Your task to perform on an android device: Clear all items from cart on ebay. Search for lenovo thinkpad on ebay, select the first entry, add it to the cart, then select checkout. Image 0: 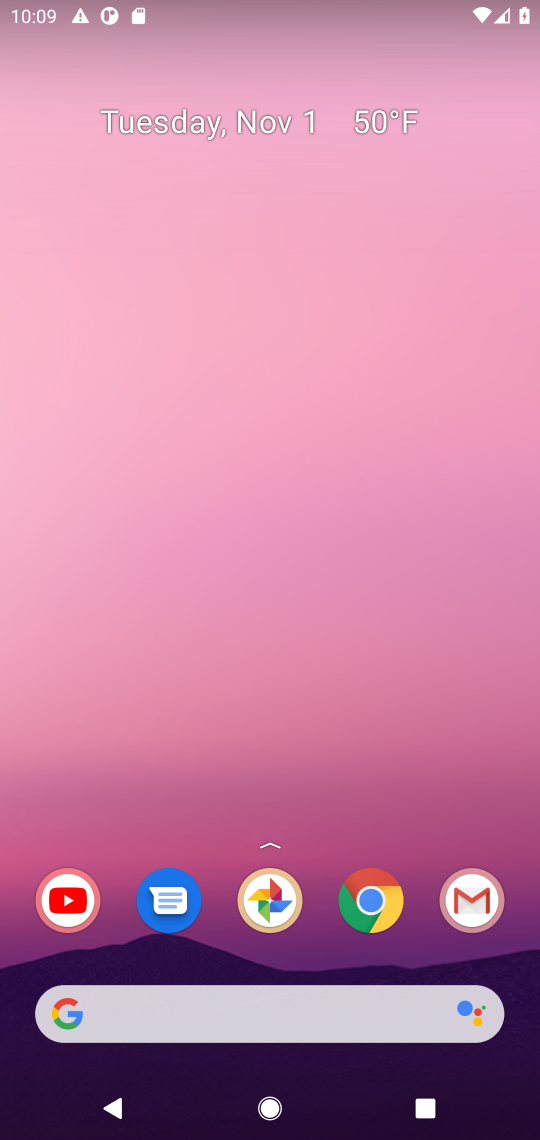
Step 0: click (352, 904)
Your task to perform on an android device: Clear all items from cart on ebay. Search for lenovo thinkpad on ebay, select the first entry, add it to the cart, then select checkout. Image 1: 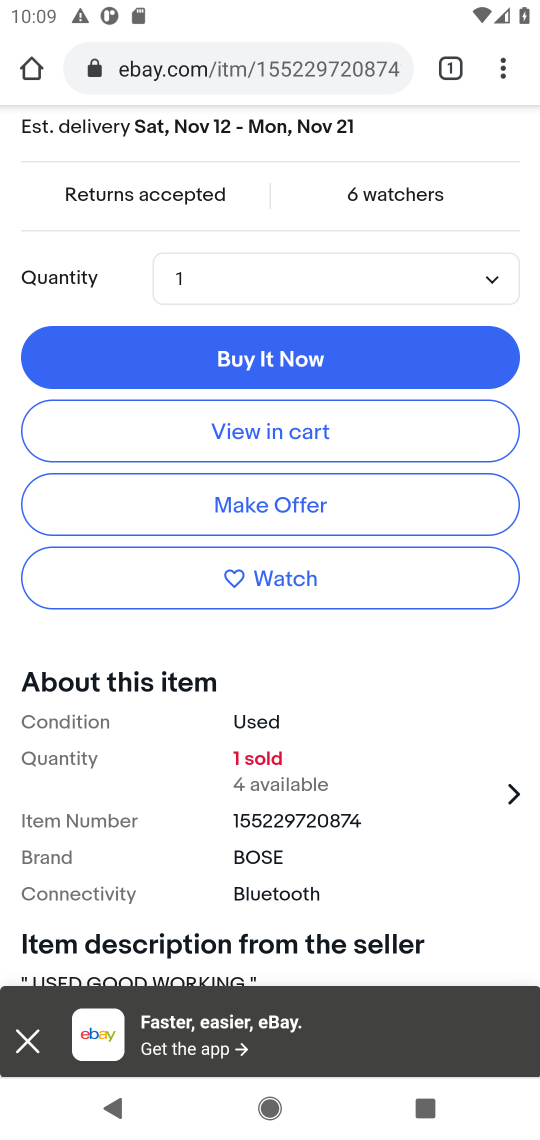
Step 1: click (281, 64)
Your task to perform on an android device: Clear all items from cart on ebay. Search for lenovo thinkpad on ebay, select the first entry, add it to the cart, then select checkout. Image 2: 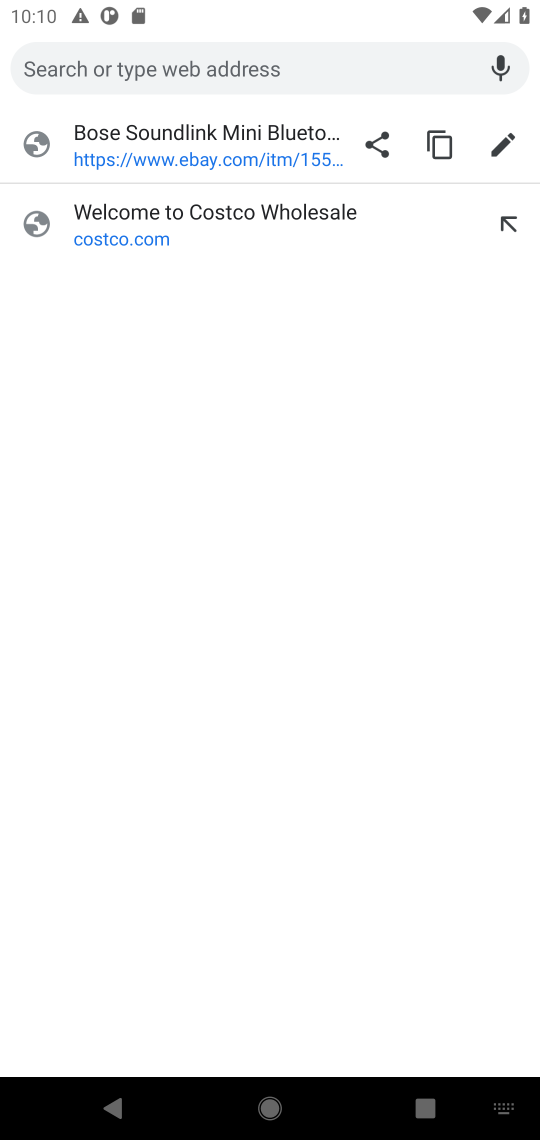
Step 2: type "ebay"
Your task to perform on an android device: Clear all items from cart on ebay. Search for lenovo thinkpad on ebay, select the first entry, add it to the cart, then select checkout. Image 3: 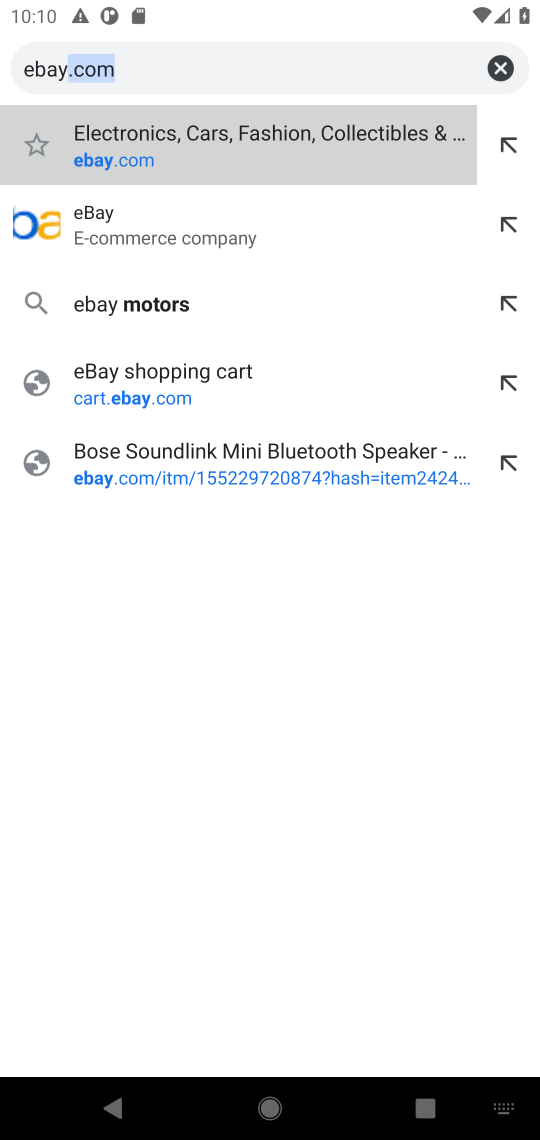
Step 3: click (119, 237)
Your task to perform on an android device: Clear all items from cart on ebay. Search for lenovo thinkpad on ebay, select the first entry, add it to the cart, then select checkout. Image 4: 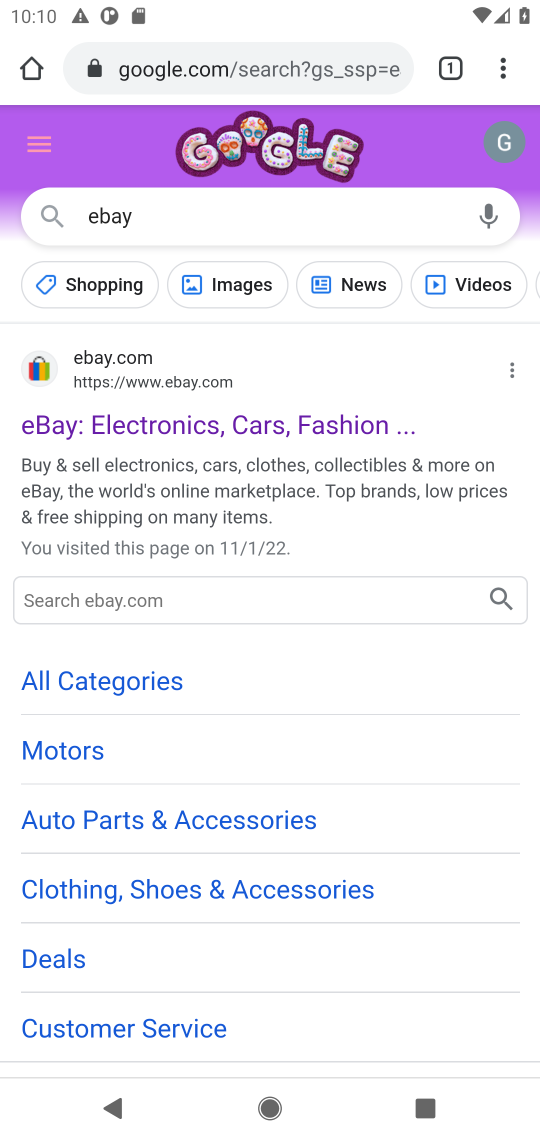
Step 4: click (186, 433)
Your task to perform on an android device: Clear all items from cart on ebay. Search for lenovo thinkpad on ebay, select the first entry, add it to the cart, then select checkout. Image 5: 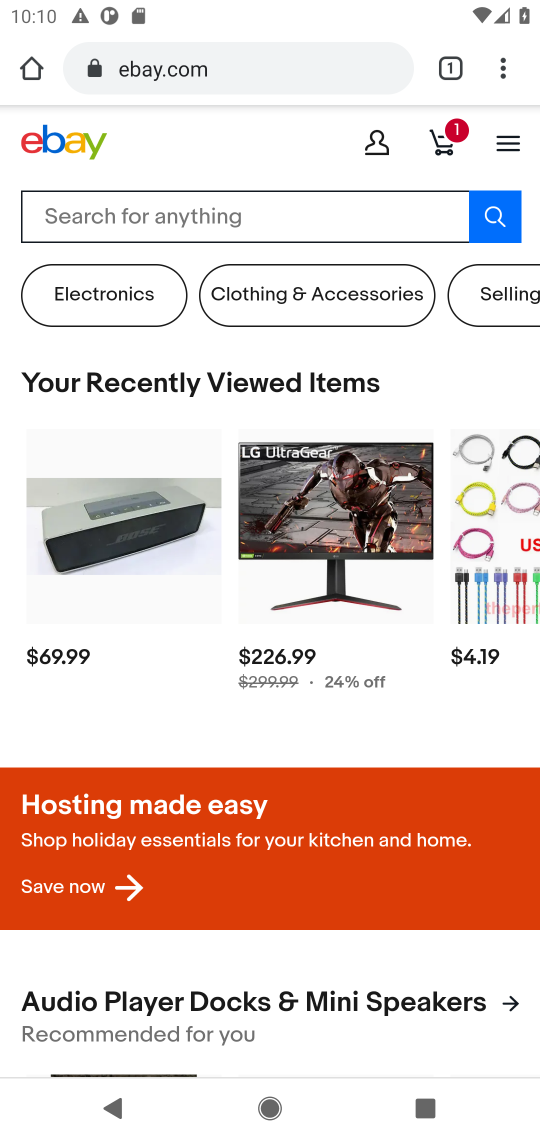
Step 5: click (428, 146)
Your task to perform on an android device: Clear all items from cart on ebay. Search for lenovo thinkpad on ebay, select the first entry, add it to the cart, then select checkout. Image 6: 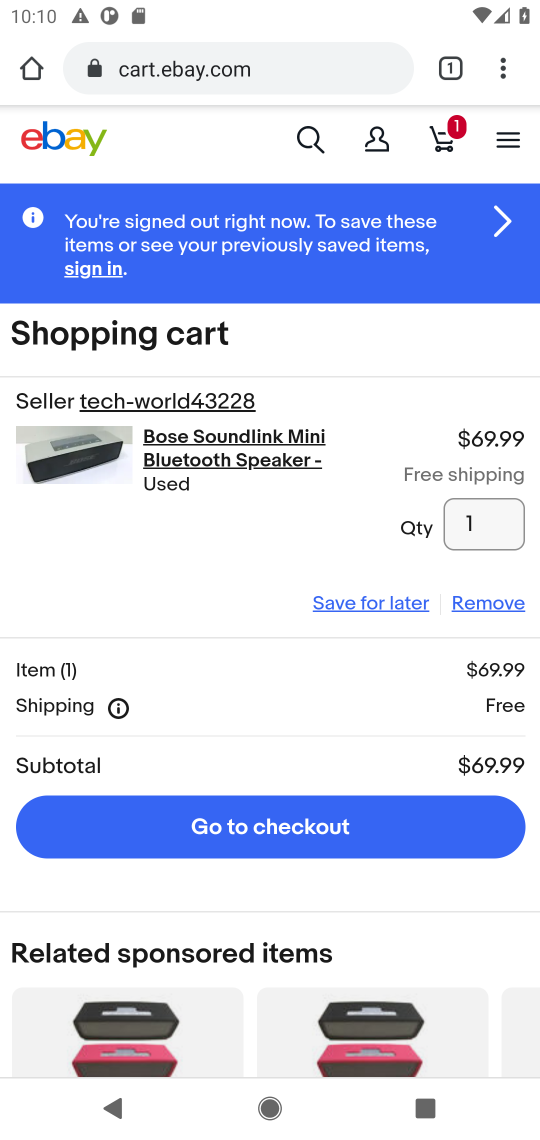
Step 6: click (447, 141)
Your task to perform on an android device: Clear all items from cart on ebay. Search for lenovo thinkpad on ebay, select the first entry, add it to the cart, then select checkout. Image 7: 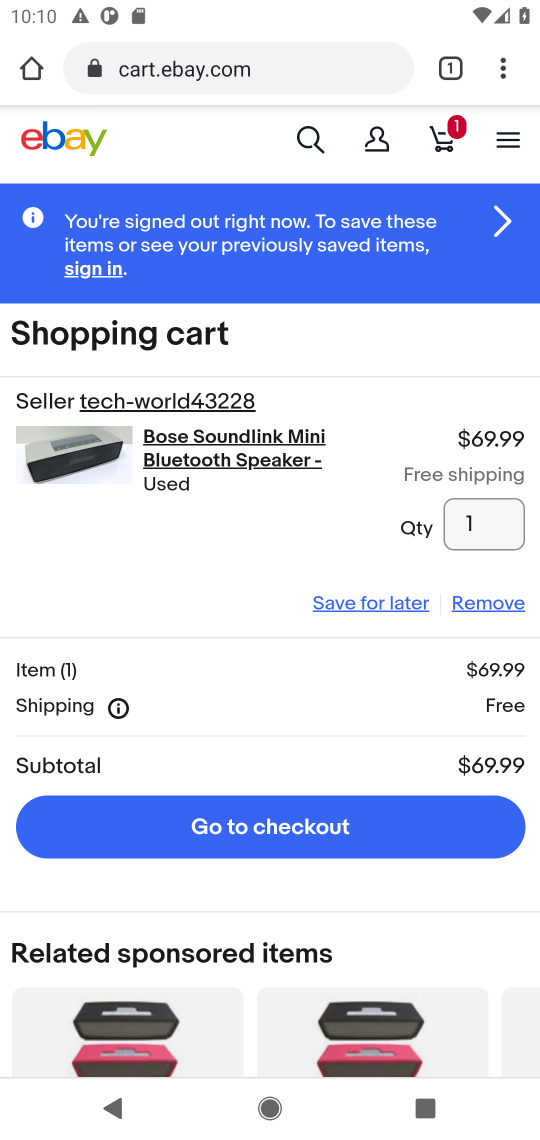
Step 7: click (467, 603)
Your task to perform on an android device: Clear all items from cart on ebay. Search for lenovo thinkpad on ebay, select the first entry, add it to the cart, then select checkout. Image 8: 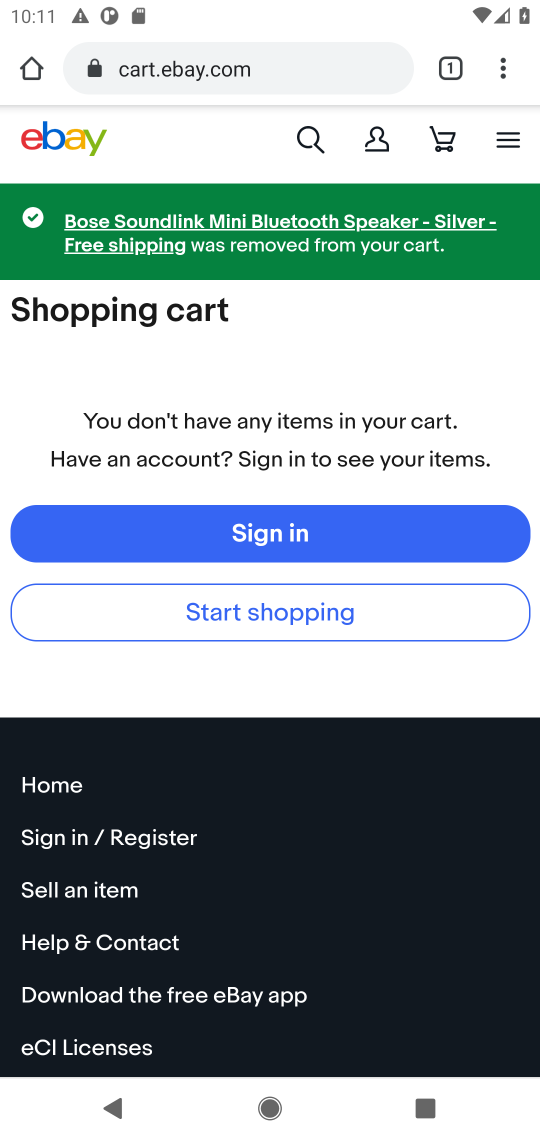
Step 8: click (303, 145)
Your task to perform on an android device: Clear all items from cart on ebay. Search for lenovo thinkpad on ebay, select the first entry, add it to the cart, then select checkout. Image 9: 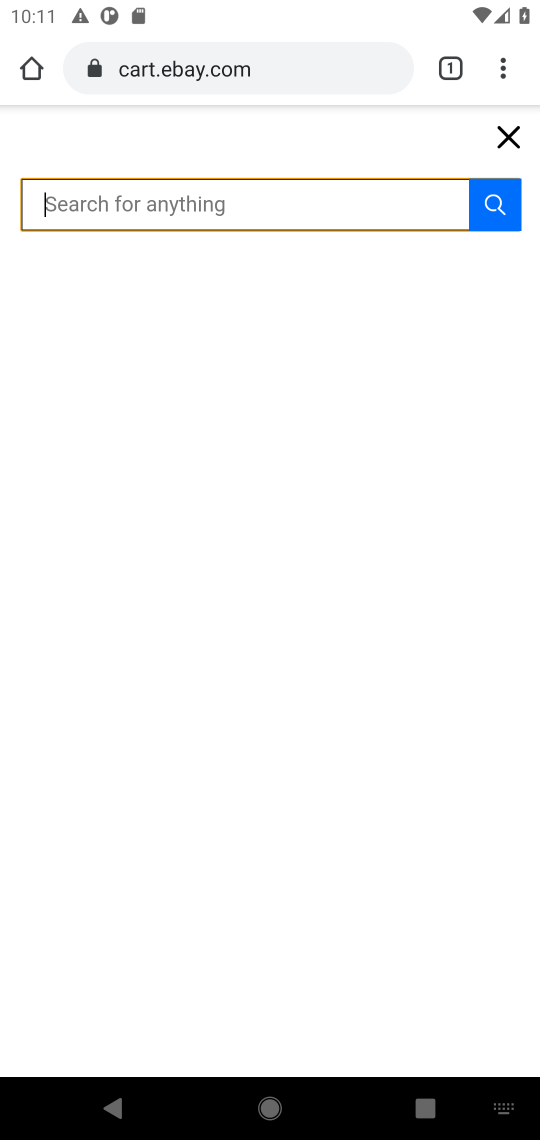
Step 9: type " lenovo thinkpad "
Your task to perform on an android device: Clear all items from cart on ebay. Search for lenovo thinkpad on ebay, select the first entry, add it to the cart, then select checkout. Image 10: 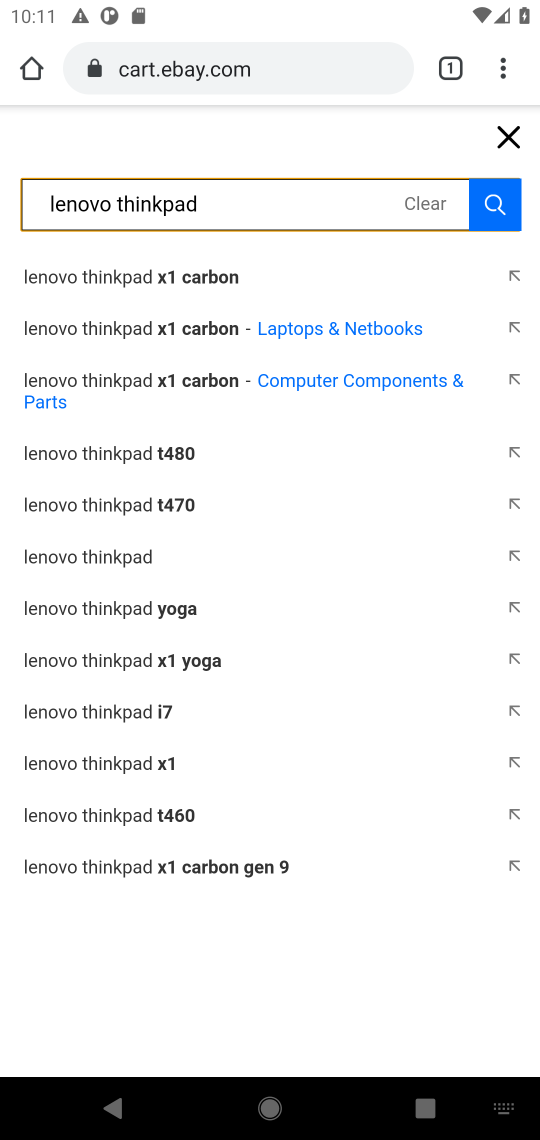
Step 10: click (497, 212)
Your task to perform on an android device: Clear all items from cart on ebay. Search for lenovo thinkpad on ebay, select the first entry, add it to the cart, then select checkout. Image 11: 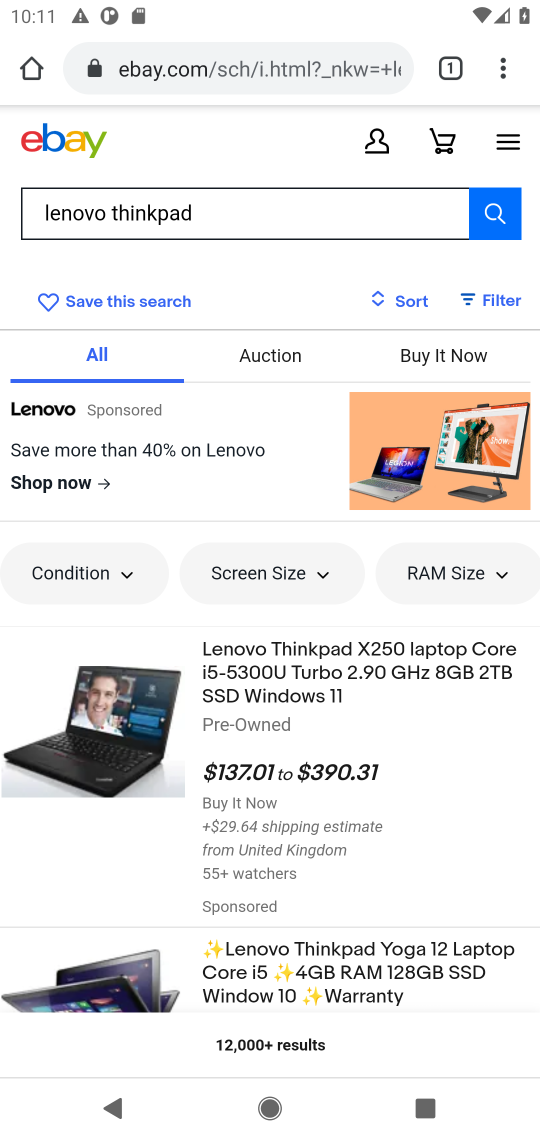
Step 11: click (323, 669)
Your task to perform on an android device: Clear all items from cart on ebay. Search for lenovo thinkpad on ebay, select the first entry, add it to the cart, then select checkout. Image 12: 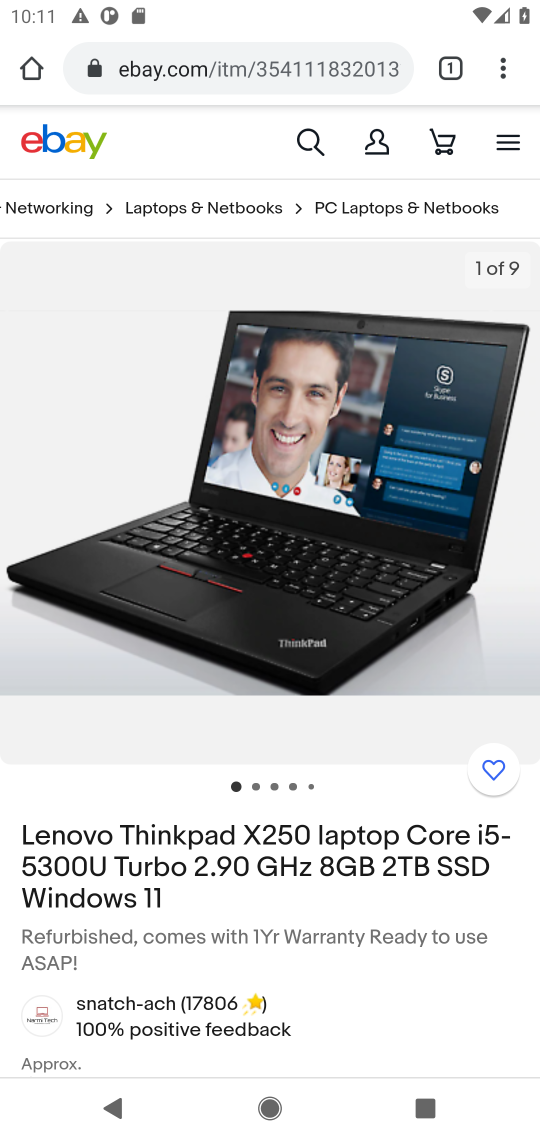
Step 12: drag from (305, 900) to (399, 502)
Your task to perform on an android device: Clear all items from cart on ebay. Search for lenovo thinkpad on ebay, select the first entry, add it to the cart, then select checkout. Image 13: 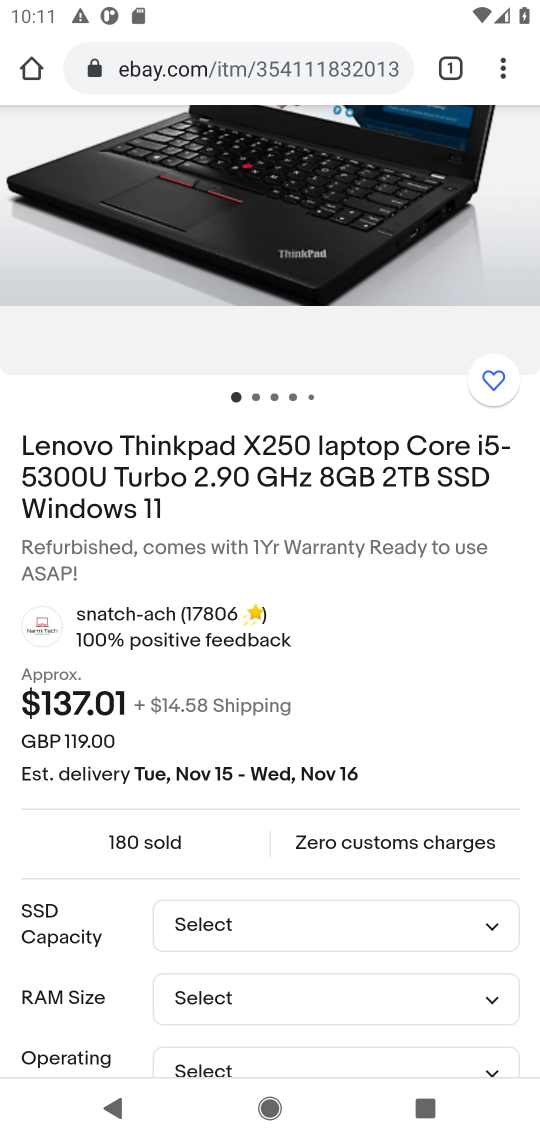
Step 13: drag from (257, 961) to (348, 544)
Your task to perform on an android device: Clear all items from cart on ebay. Search for lenovo thinkpad on ebay, select the first entry, add it to the cart, then select checkout. Image 14: 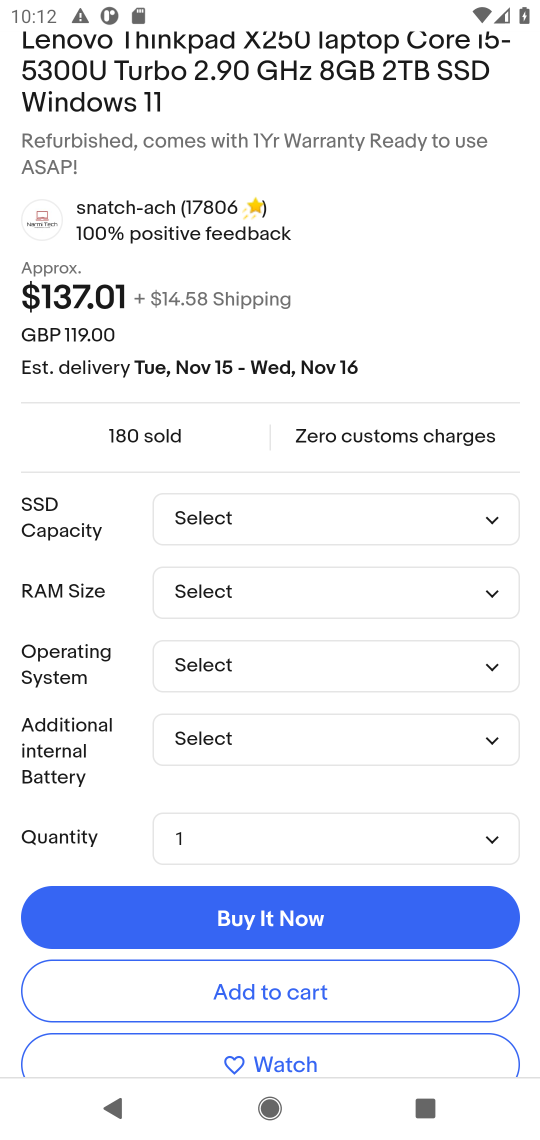
Step 14: click (425, 518)
Your task to perform on an android device: Clear all items from cart on ebay. Search for lenovo thinkpad on ebay, select the first entry, add it to the cart, then select checkout. Image 15: 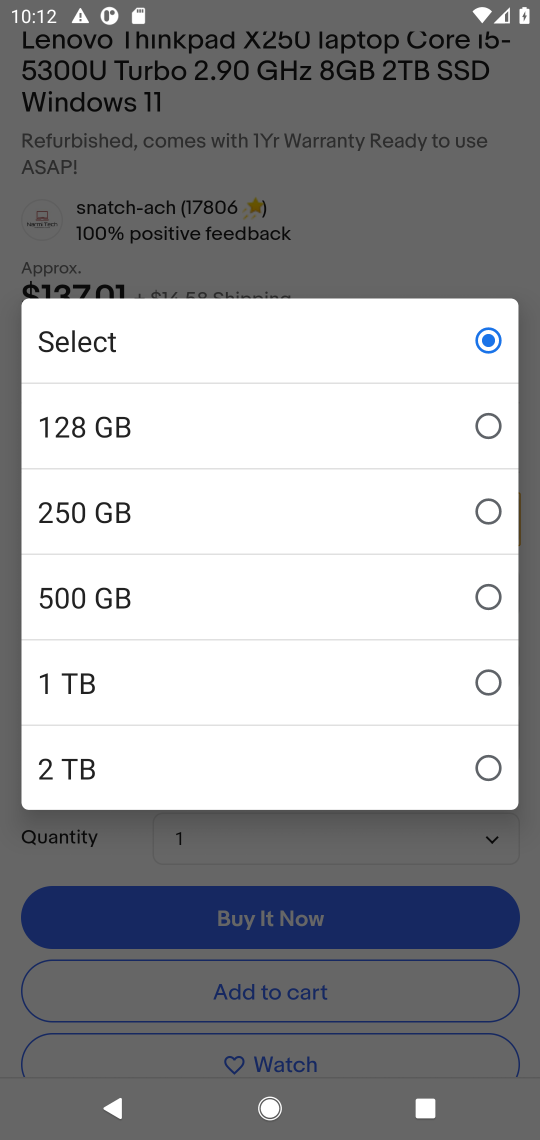
Step 15: click (425, 518)
Your task to perform on an android device: Clear all items from cart on ebay. Search for lenovo thinkpad on ebay, select the first entry, add it to the cart, then select checkout. Image 16: 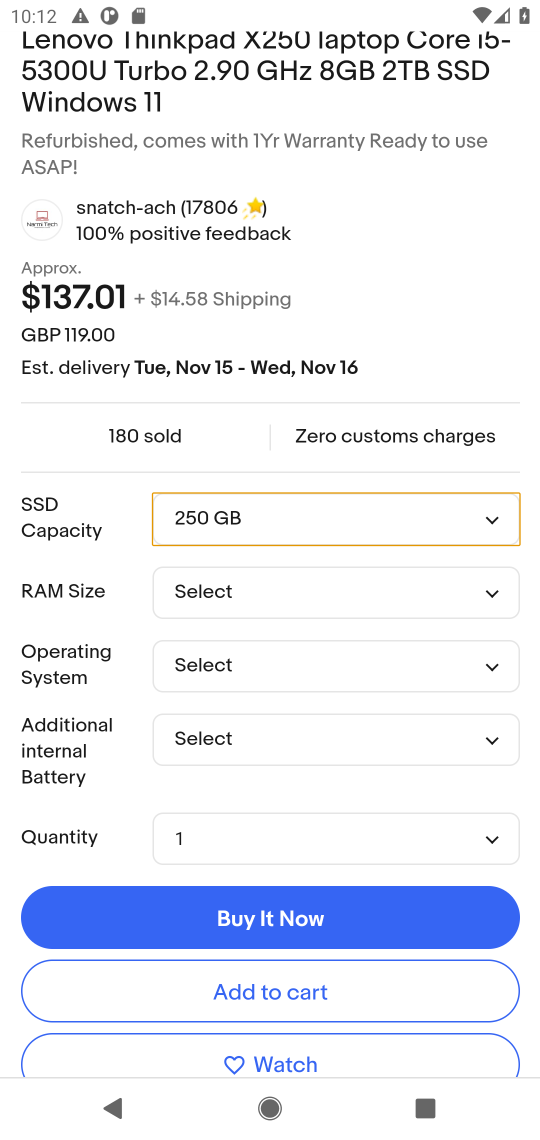
Step 16: click (305, 584)
Your task to perform on an android device: Clear all items from cart on ebay. Search for lenovo thinkpad on ebay, select the first entry, add it to the cart, then select checkout. Image 17: 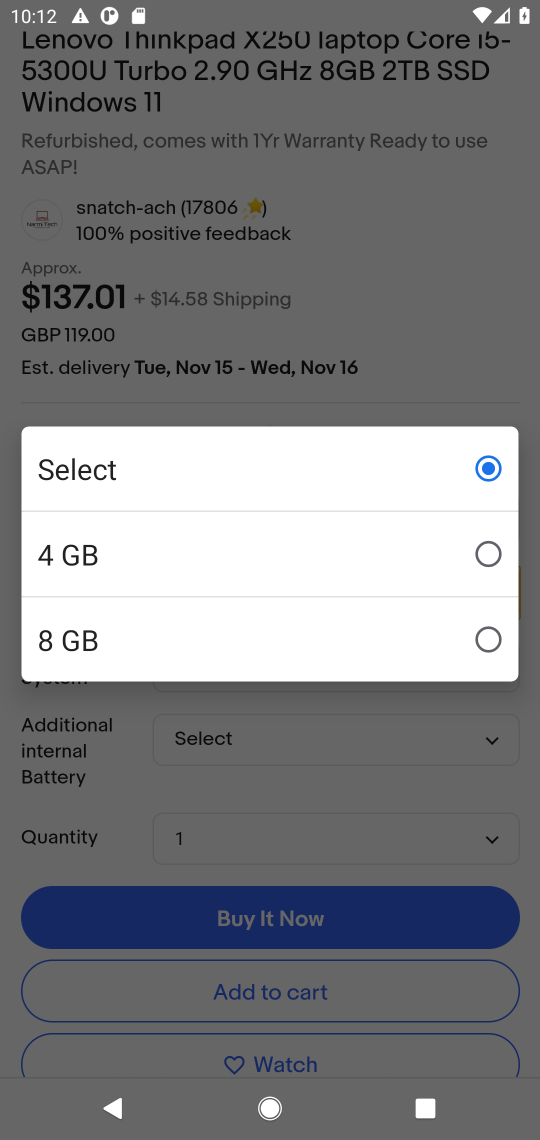
Step 17: click (305, 584)
Your task to perform on an android device: Clear all items from cart on ebay. Search for lenovo thinkpad on ebay, select the first entry, add it to the cart, then select checkout. Image 18: 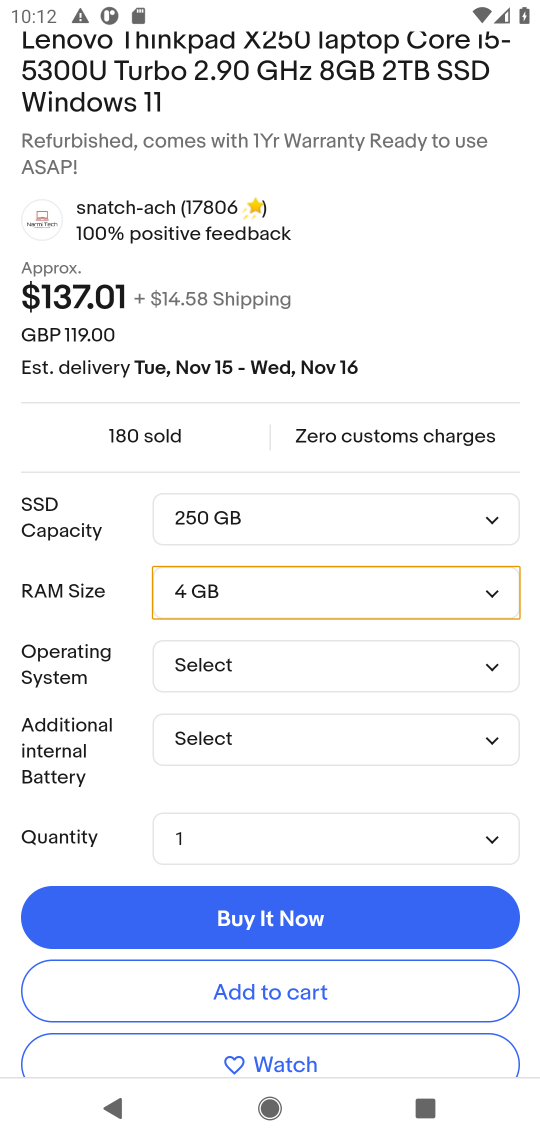
Step 18: click (338, 668)
Your task to perform on an android device: Clear all items from cart on ebay. Search for lenovo thinkpad on ebay, select the first entry, add it to the cart, then select checkout. Image 19: 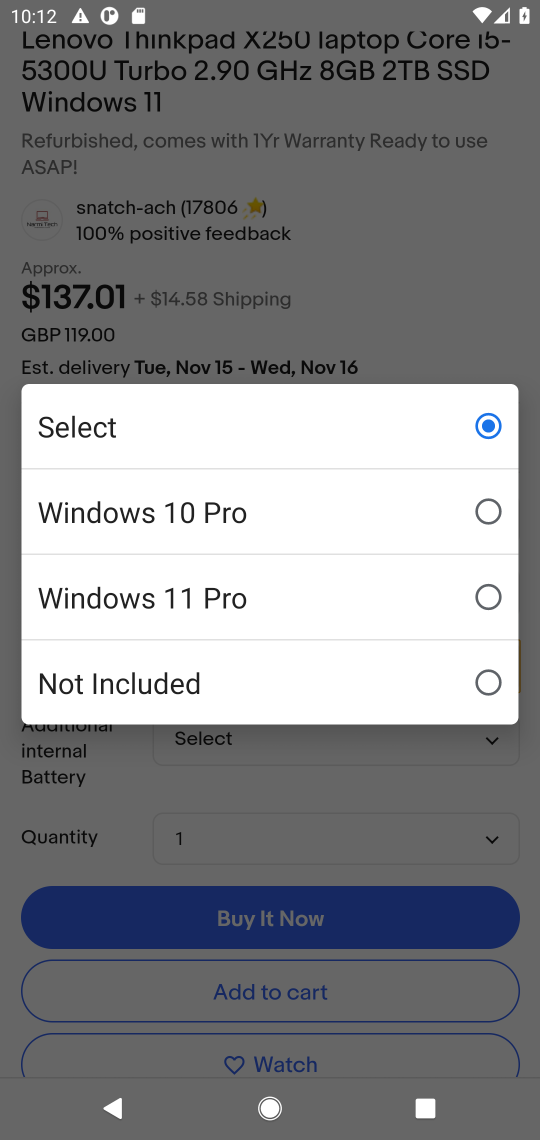
Step 19: click (320, 661)
Your task to perform on an android device: Clear all items from cart on ebay. Search for lenovo thinkpad on ebay, select the first entry, add it to the cart, then select checkout. Image 20: 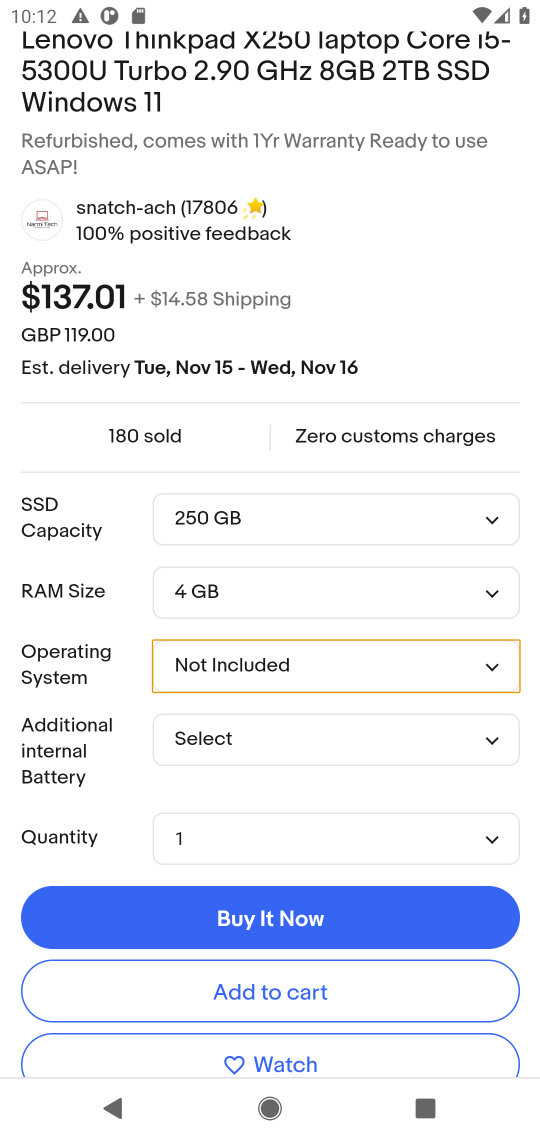
Step 20: click (356, 730)
Your task to perform on an android device: Clear all items from cart on ebay. Search for lenovo thinkpad on ebay, select the first entry, add it to the cart, then select checkout. Image 21: 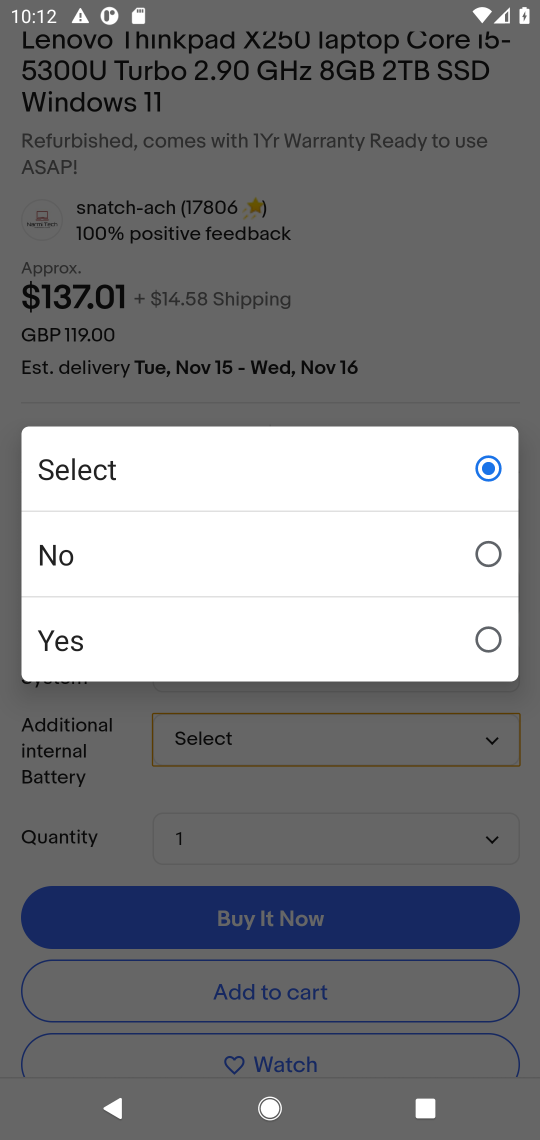
Step 21: click (286, 656)
Your task to perform on an android device: Clear all items from cart on ebay. Search for lenovo thinkpad on ebay, select the first entry, add it to the cart, then select checkout. Image 22: 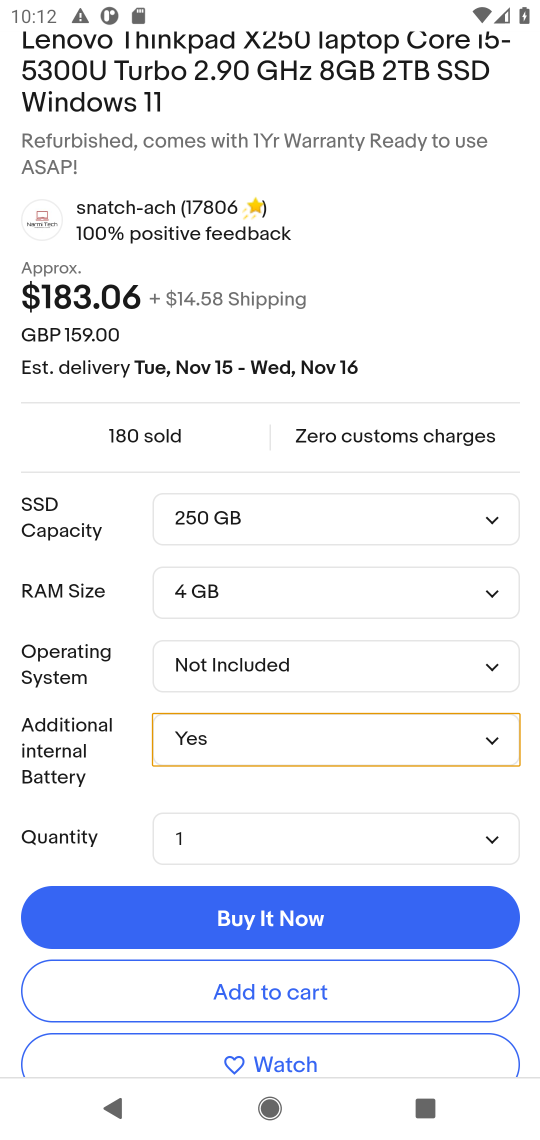
Step 22: click (273, 982)
Your task to perform on an android device: Clear all items from cart on ebay. Search for lenovo thinkpad on ebay, select the first entry, add it to the cart, then select checkout. Image 23: 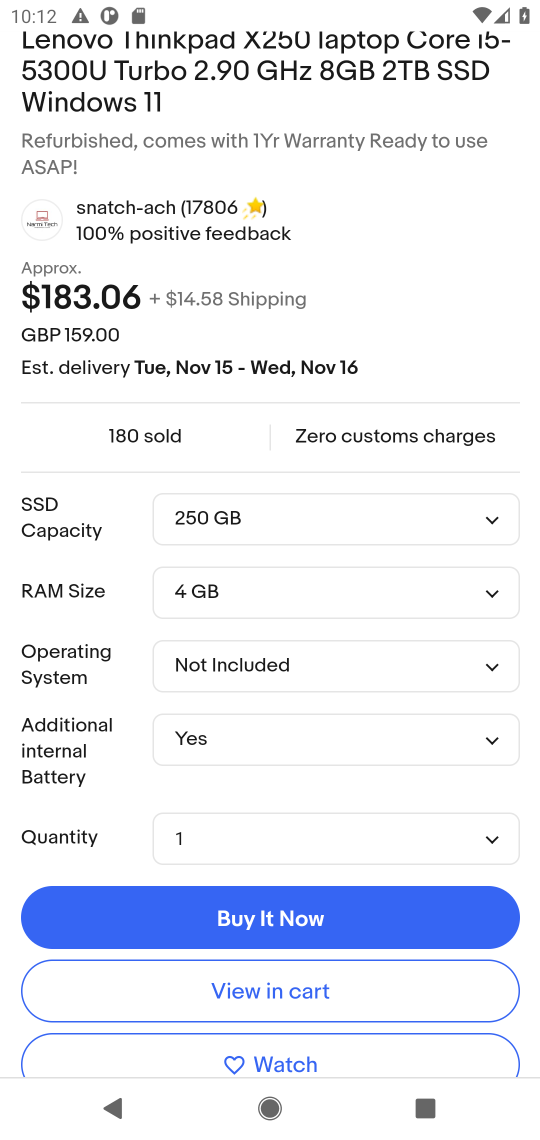
Step 23: click (273, 982)
Your task to perform on an android device: Clear all items from cart on ebay. Search for lenovo thinkpad on ebay, select the first entry, add it to the cart, then select checkout. Image 24: 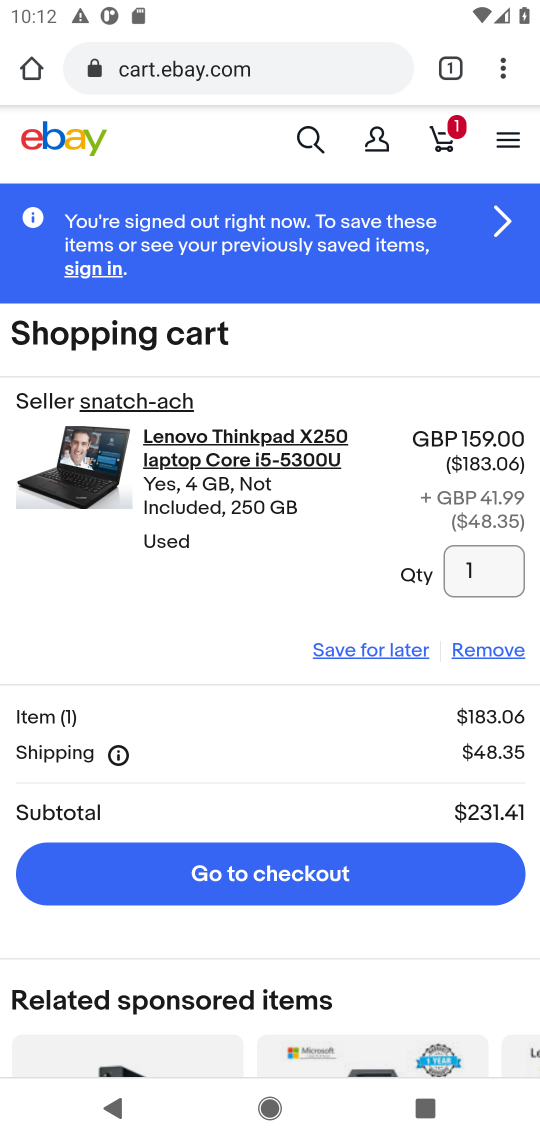
Step 24: click (295, 844)
Your task to perform on an android device: Clear all items from cart on ebay. Search for lenovo thinkpad on ebay, select the first entry, add it to the cart, then select checkout. Image 25: 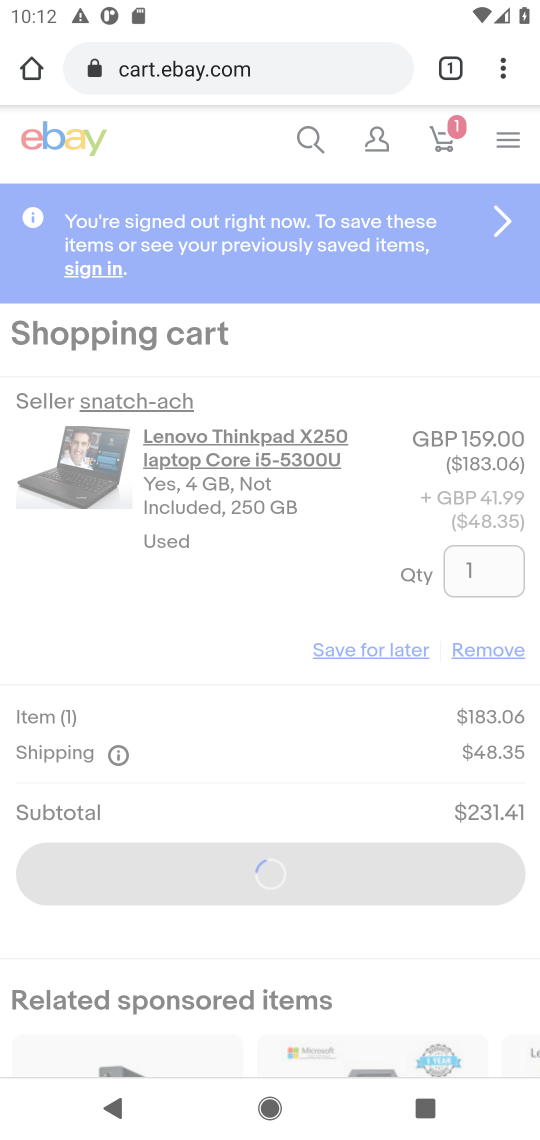
Step 25: click (312, 857)
Your task to perform on an android device: Clear all items from cart on ebay. Search for lenovo thinkpad on ebay, select the first entry, add it to the cart, then select checkout. Image 26: 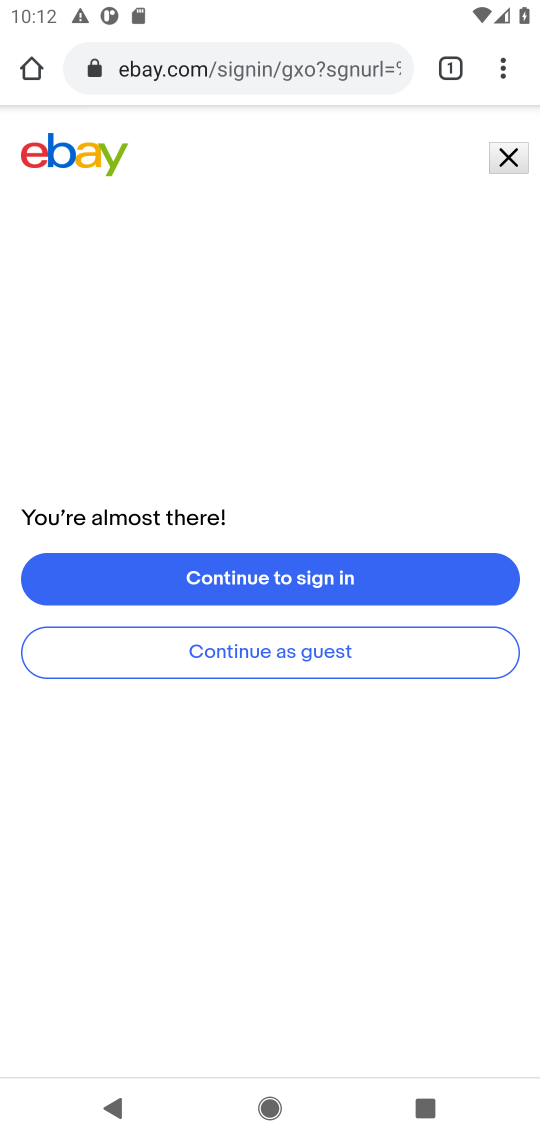
Step 26: task complete